Your task to perform on an android device: What's the weather going to be tomorrow? Image 0: 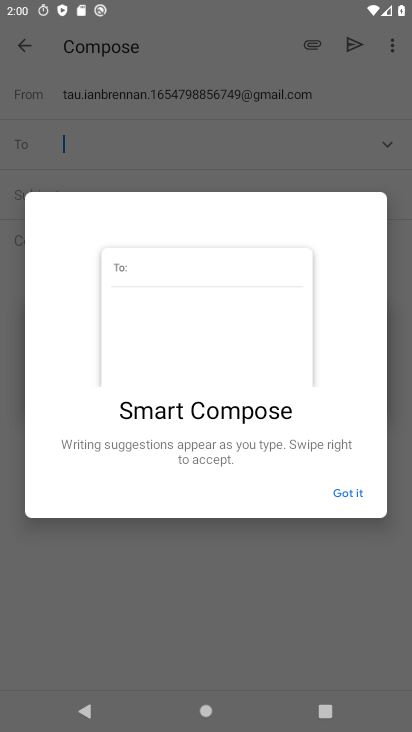
Step 0: press home button
Your task to perform on an android device: What's the weather going to be tomorrow? Image 1: 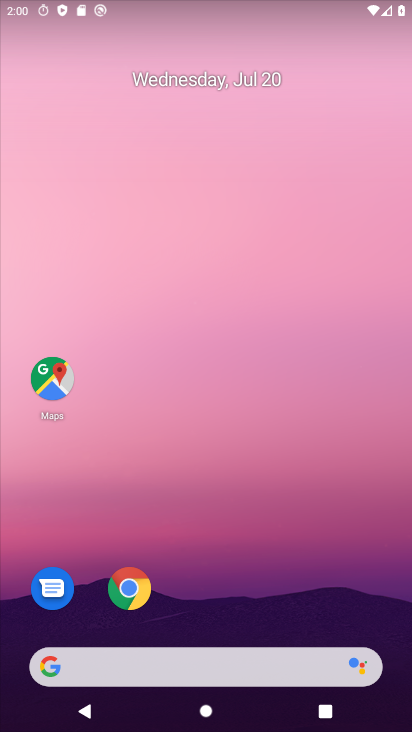
Step 1: drag from (319, 402) to (336, 18)
Your task to perform on an android device: What's the weather going to be tomorrow? Image 2: 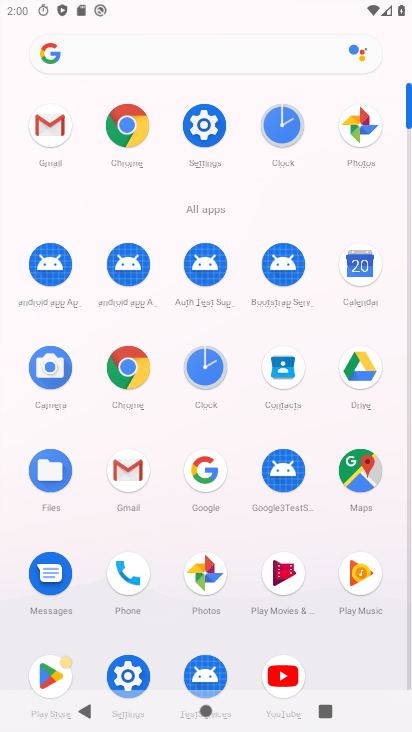
Step 2: click (140, 370)
Your task to perform on an android device: What's the weather going to be tomorrow? Image 3: 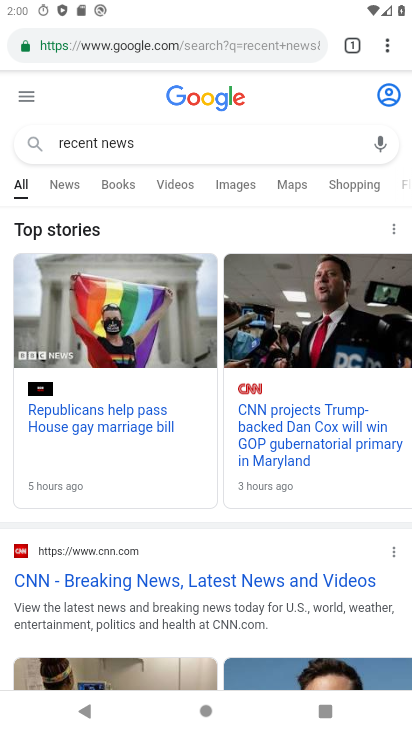
Step 3: click (169, 40)
Your task to perform on an android device: What's the weather going to be tomorrow? Image 4: 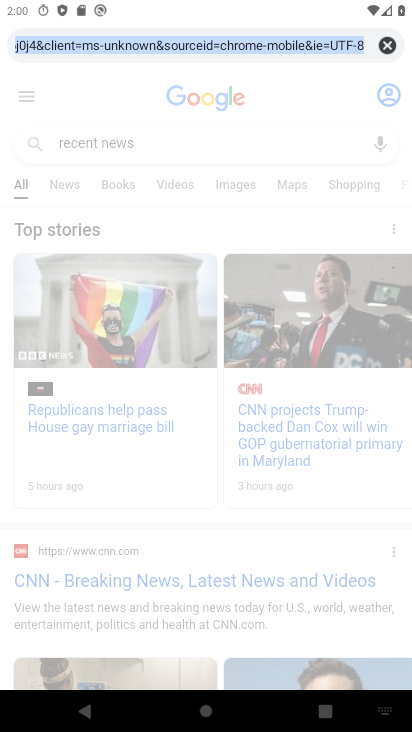
Step 4: click (390, 45)
Your task to perform on an android device: What's the weather going to be tomorrow? Image 5: 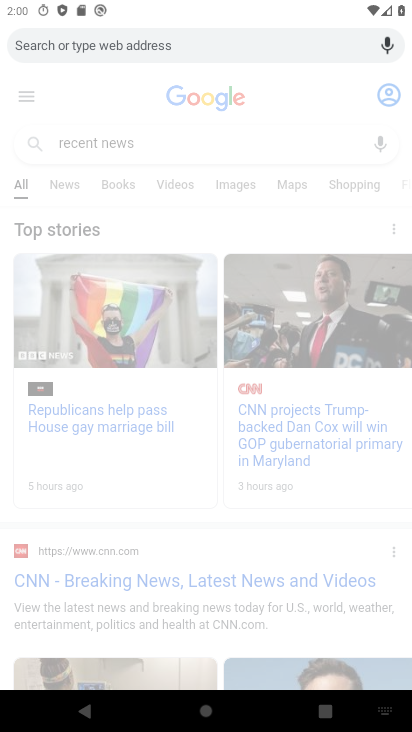
Step 5: type "weather going to be tomorrow"
Your task to perform on an android device: What's the weather going to be tomorrow? Image 6: 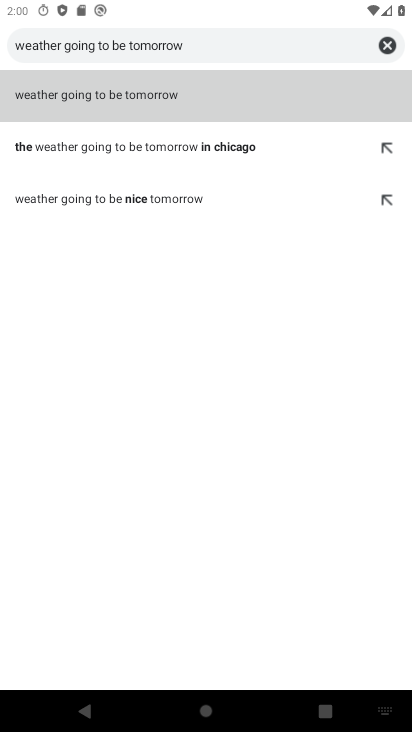
Step 6: click (132, 88)
Your task to perform on an android device: What's the weather going to be tomorrow? Image 7: 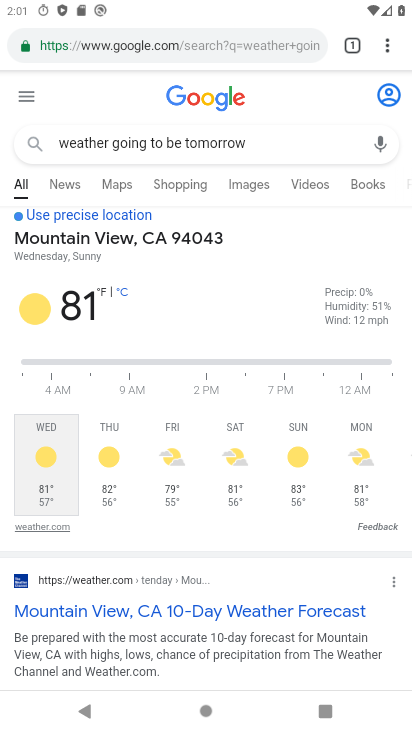
Step 7: task complete